Your task to perform on an android device: Show me productivity apps on the Play Store Image 0: 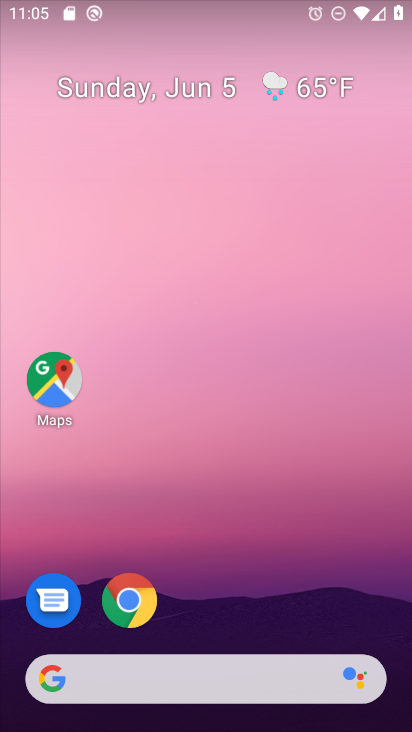
Step 0: drag from (358, 443) to (254, 51)
Your task to perform on an android device: Show me productivity apps on the Play Store Image 1: 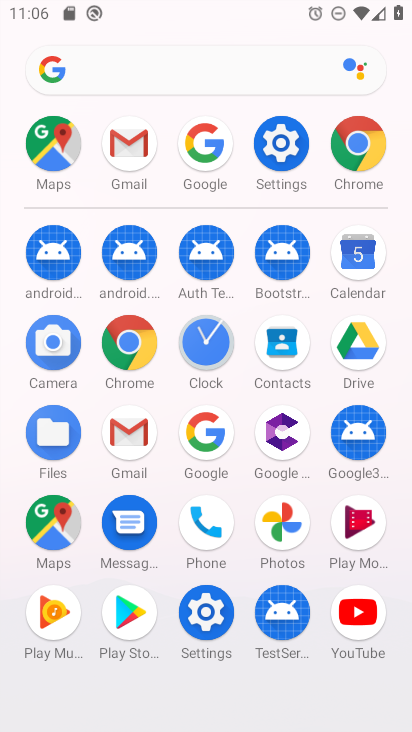
Step 1: click (120, 625)
Your task to perform on an android device: Show me productivity apps on the Play Store Image 2: 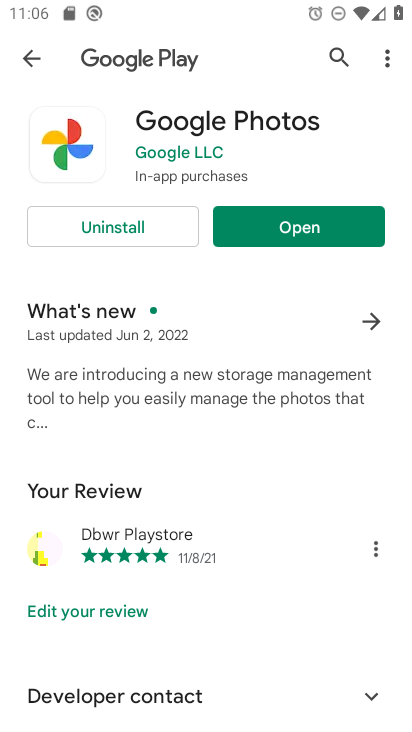
Step 2: press back button
Your task to perform on an android device: Show me productivity apps on the Play Store Image 3: 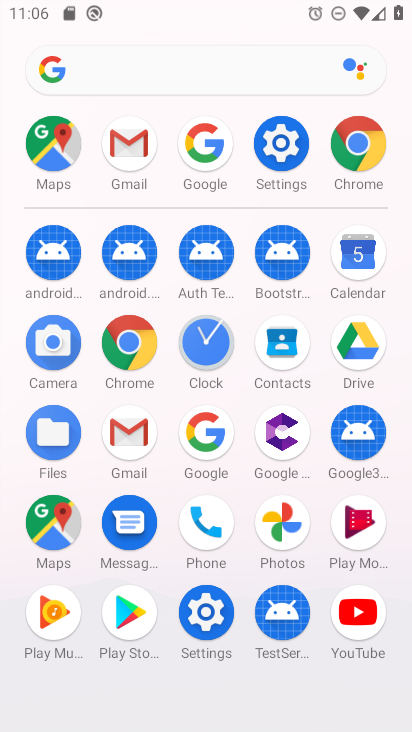
Step 3: click (138, 625)
Your task to perform on an android device: Show me productivity apps on the Play Store Image 4: 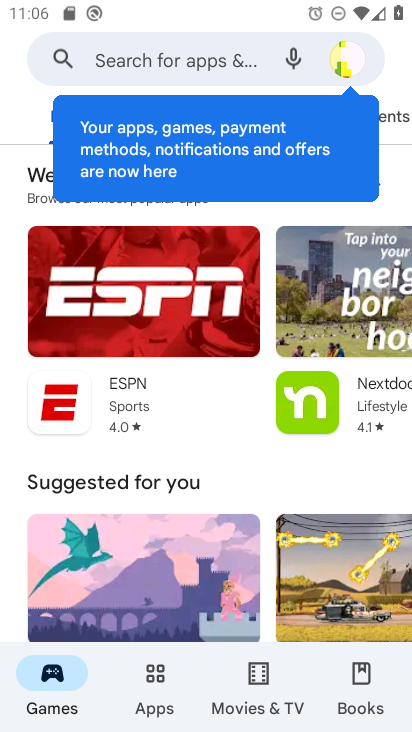
Step 4: task complete